Your task to perform on an android device: turn notification dots off Image 0: 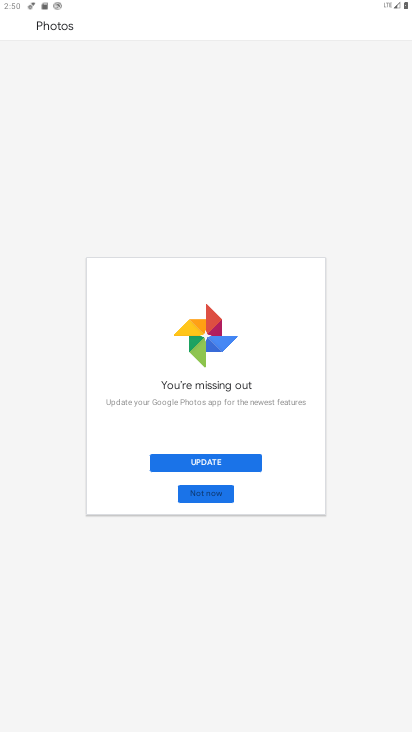
Step 0: press home button
Your task to perform on an android device: turn notification dots off Image 1: 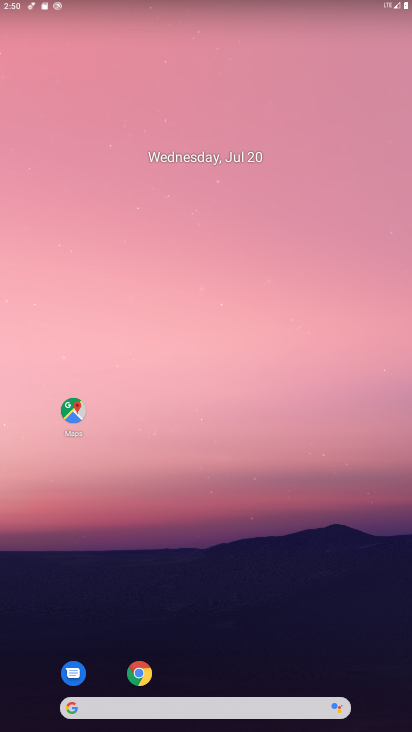
Step 1: drag from (238, 658) to (256, 19)
Your task to perform on an android device: turn notification dots off Image 2: 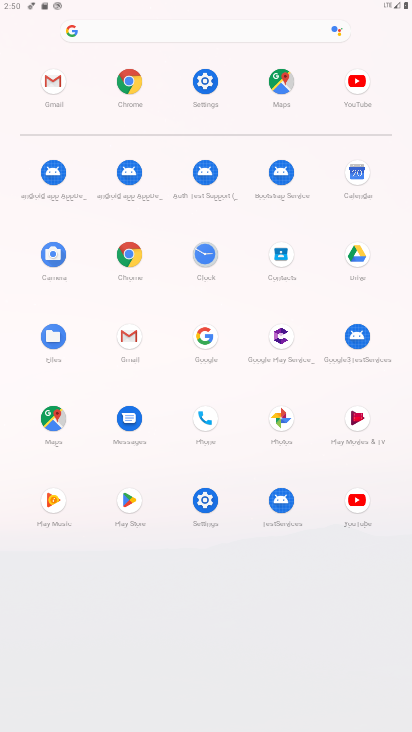
Step 2: click (214, 497)
Your task to perform on an android device: turn notification dots off Image 3: 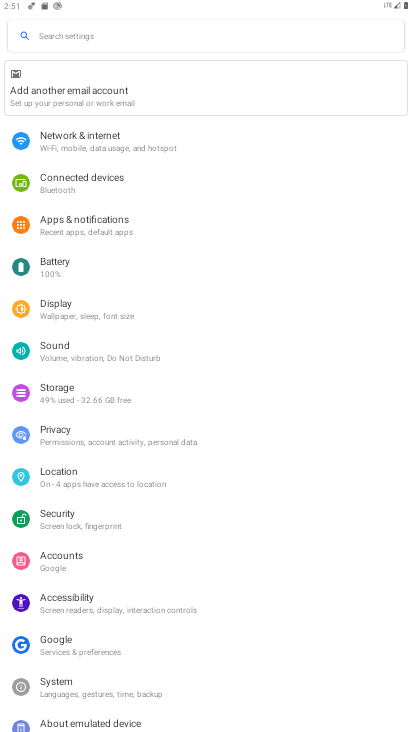
Step 3: click (101, 229)
Your task to perform on an android device: turn notification dots off Image 4: 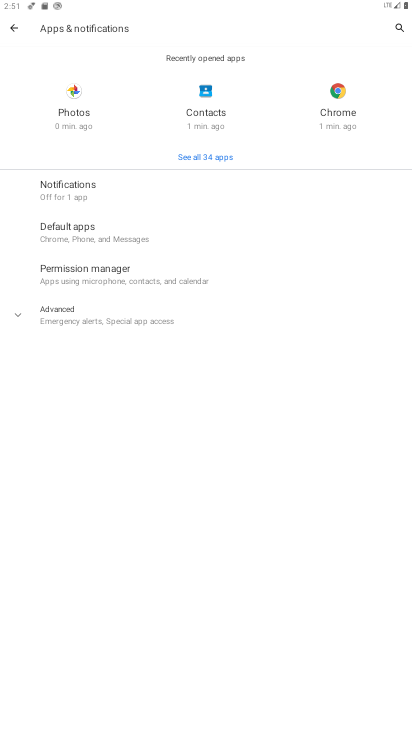
Step 4: click (69, 191)
Your task to perform on an android device: turn notification dots off Image 5: 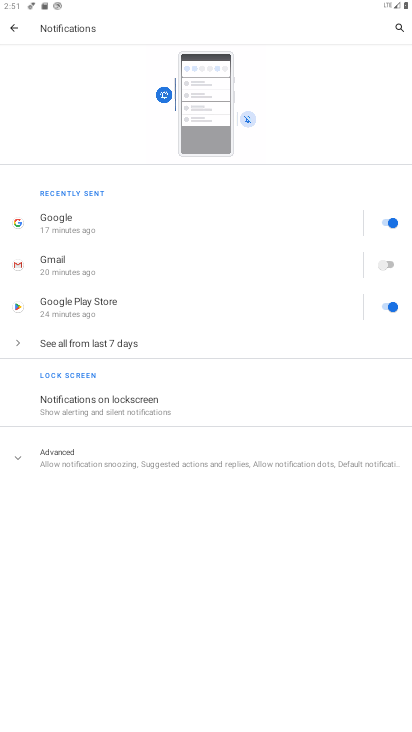
Step 5: click (88, 464)
Your task to perform on an android device: turn notification dots off Image 6: 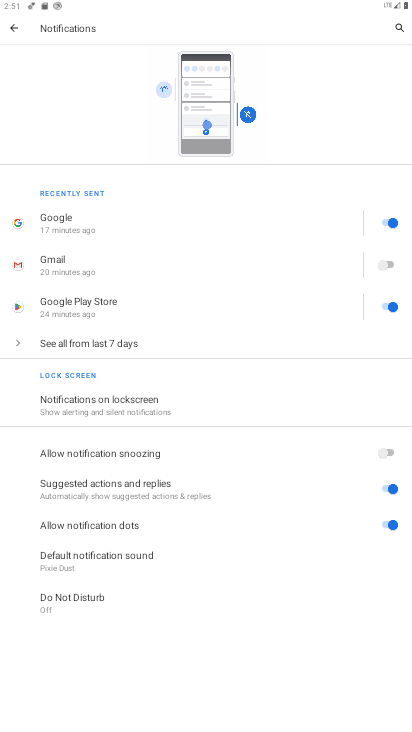
Step 6: click (362, 528)
Your task to perform on an android device: turn notification dots off Image 7: 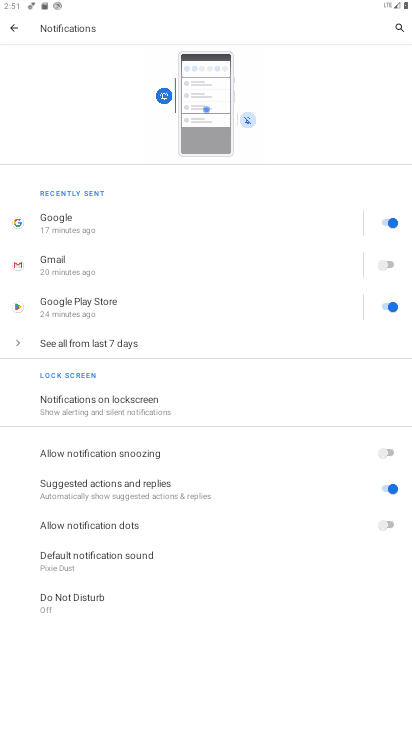
Step 7: task complete